Your task to perform on an android device: Open eBay Image 0: 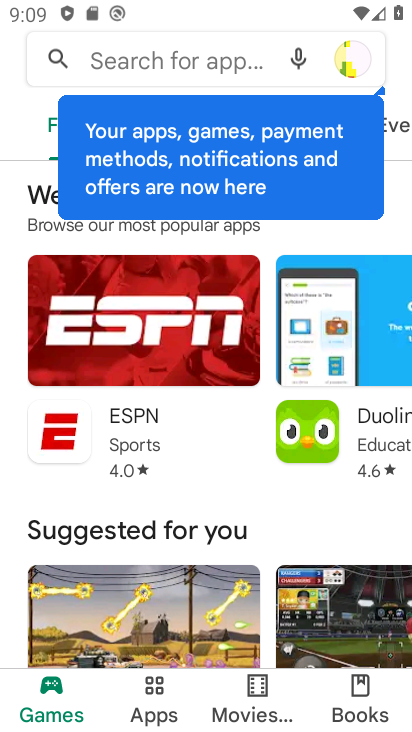
Step 0: press home button
Your task to perform on an android device: Open eBay Image 1: 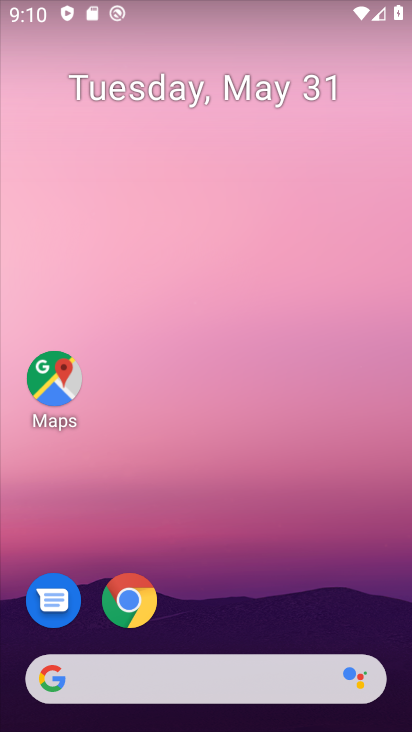
Step 1: click (127, 601)
Your task to perform on an android device: Open eBay Image 2: 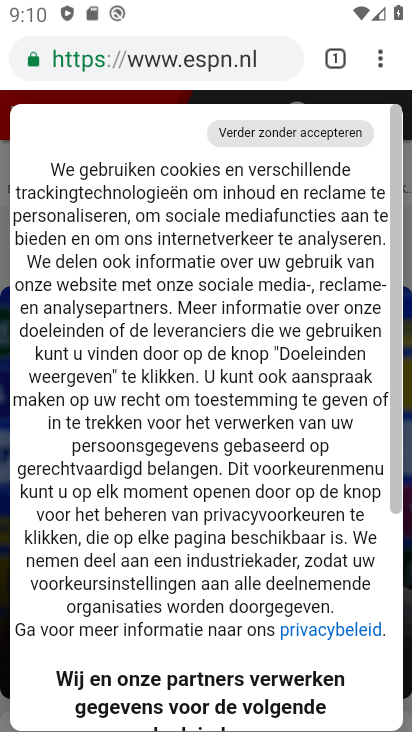
Step 2: click (187, 60)
Your task to perform on an android device: Open eBay Image 3: 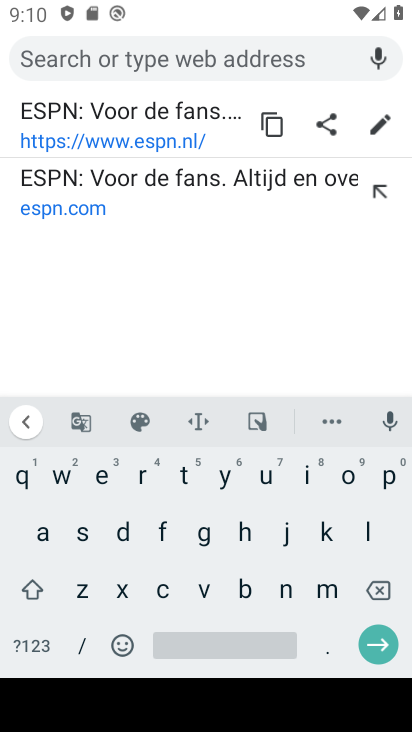
Step 3: click (98, 466)
Your task to perform on an android device: Open eBay Image 4: 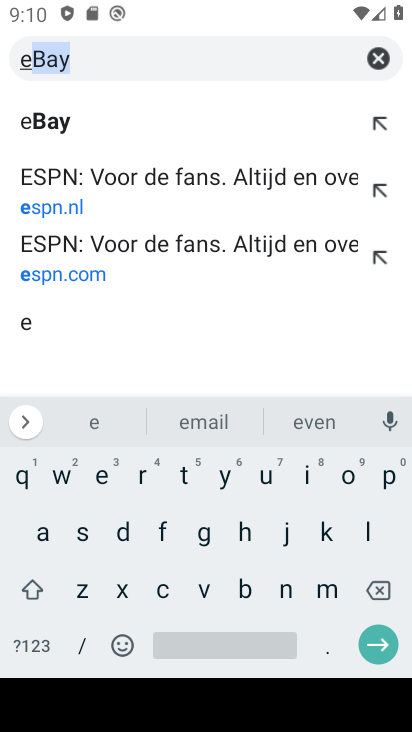
Step 4: click (79, 120)
Your task to perform on an android device: Open eBay Image 5: 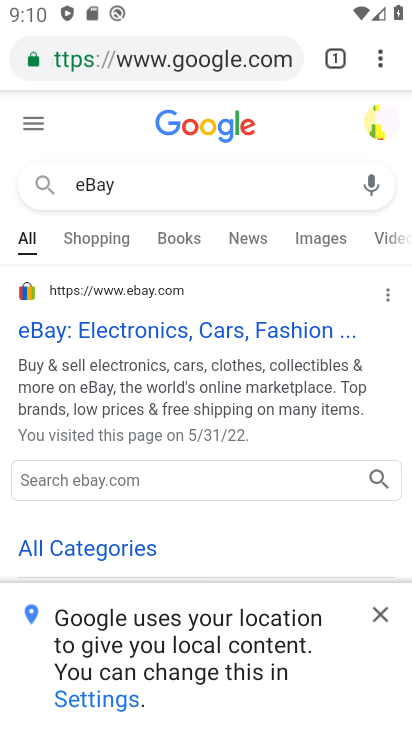
Step 5: click (383, 608)
Your task to perform on an android device: Open eBay Image 6: 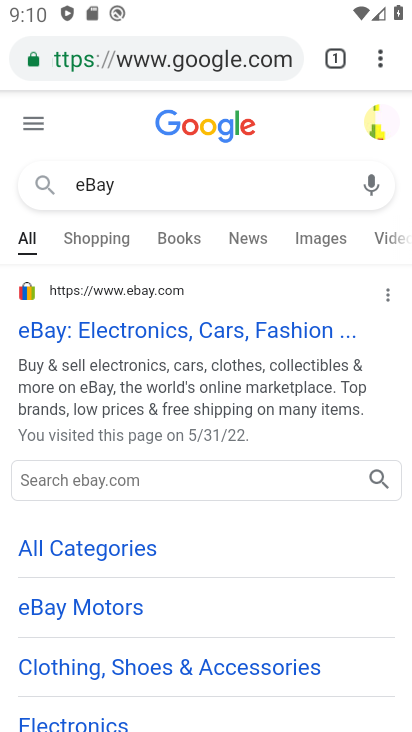
Step 6: click (117, 332)
Your task to perform on an android device: Open eBay Image 7: 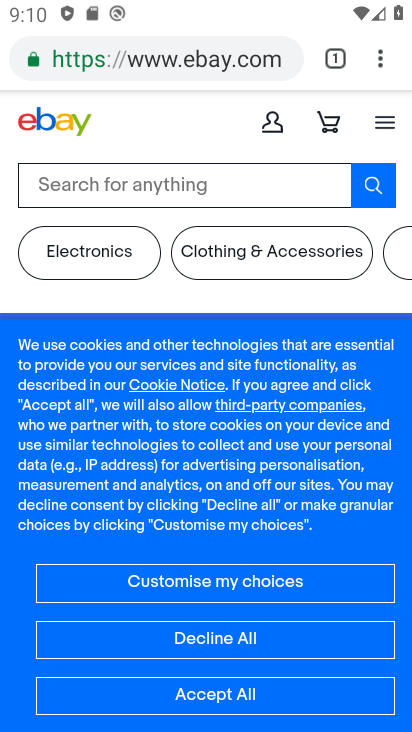
Step 7: task complete